Your task to perform on an android device: Search for "razer blade" on walmart, select the first entry, add it to the cart, then select checkout. Image 0: 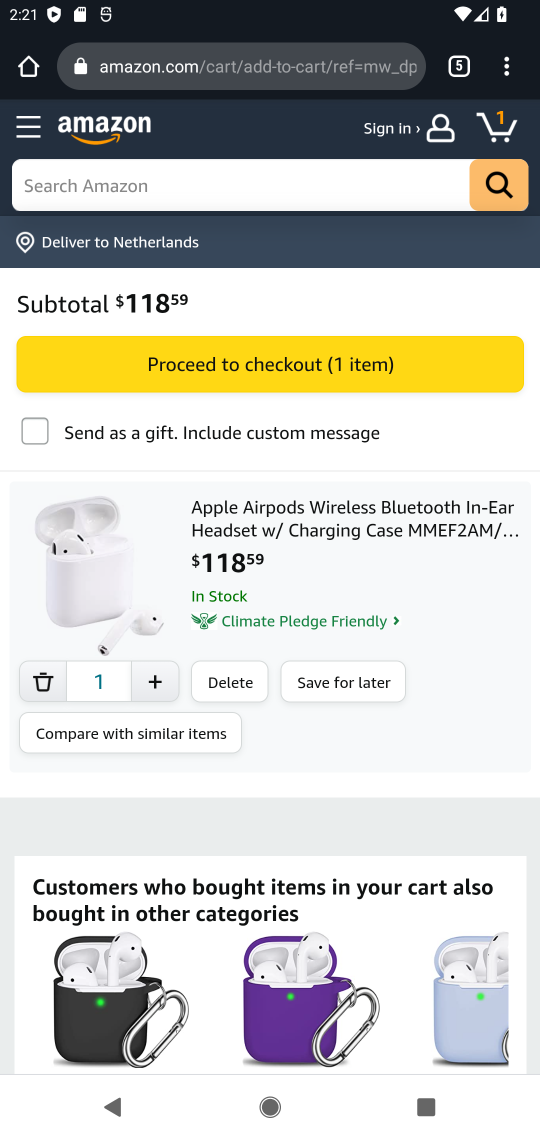
Step 0: click (459, 64)
Your task to perform on an android device: Search for "razer blade" on walmart, select the first entry, add it to the cart, then select checkout. Image 1: 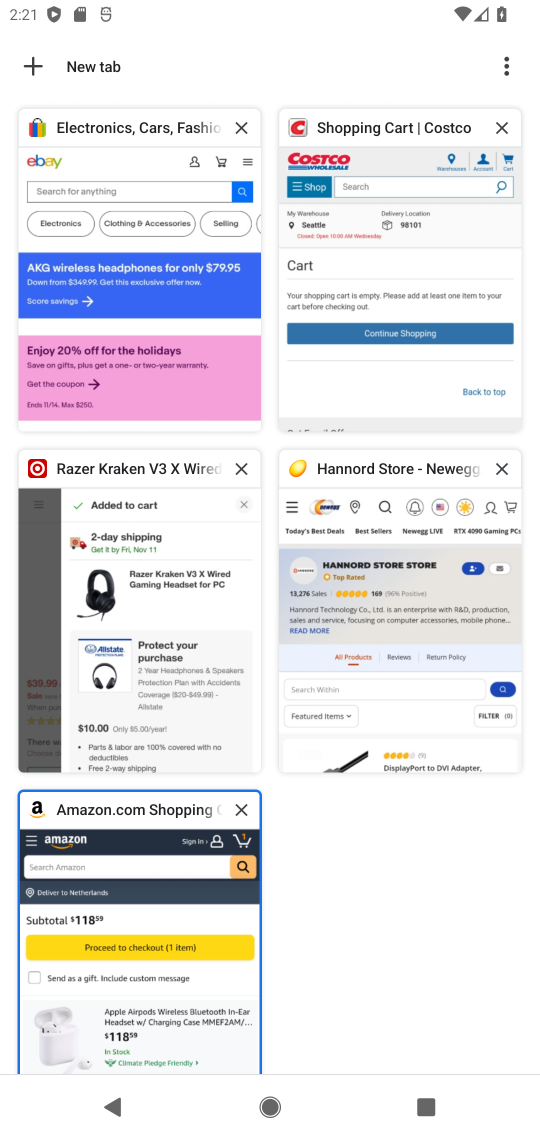
Step 1: click (37, 55)
Your task to perform on an android device: Search for "razer blade" on walmart, select the first entry, add it to the cart, then select checkout. Image 2: 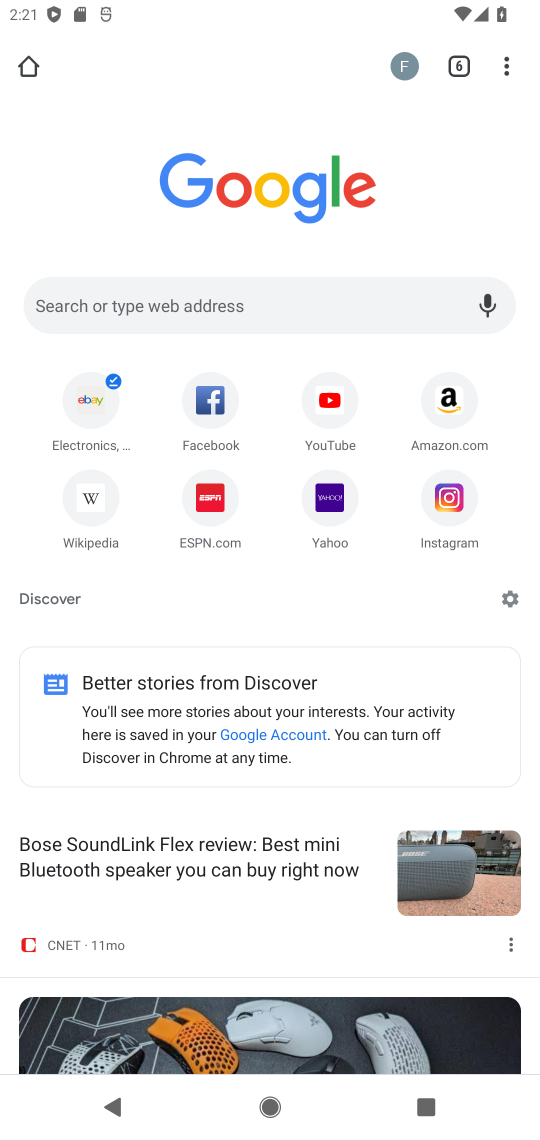
Step 2: click (103, 299)
Your task to perform on an android device: Search for "razer blade" on walmart, select the first entry, add it to the cart, then select checkout. Image 3: 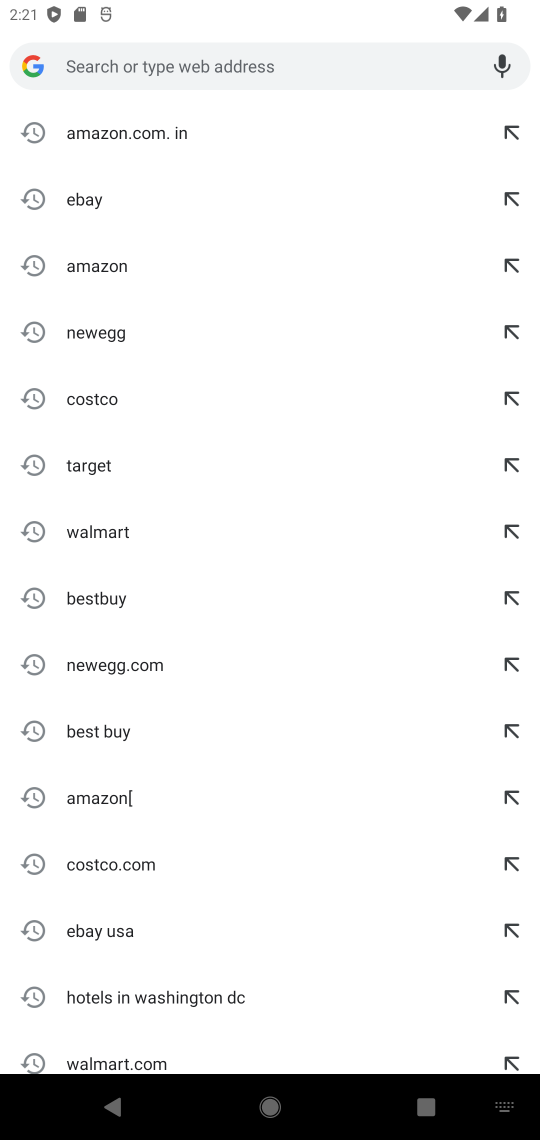
Step 3: click (100, 529)
Your task to perform on an android device: Search for "razer blade" on walmart, select the first entry, add it to the cart, then select checkout. Image 4: 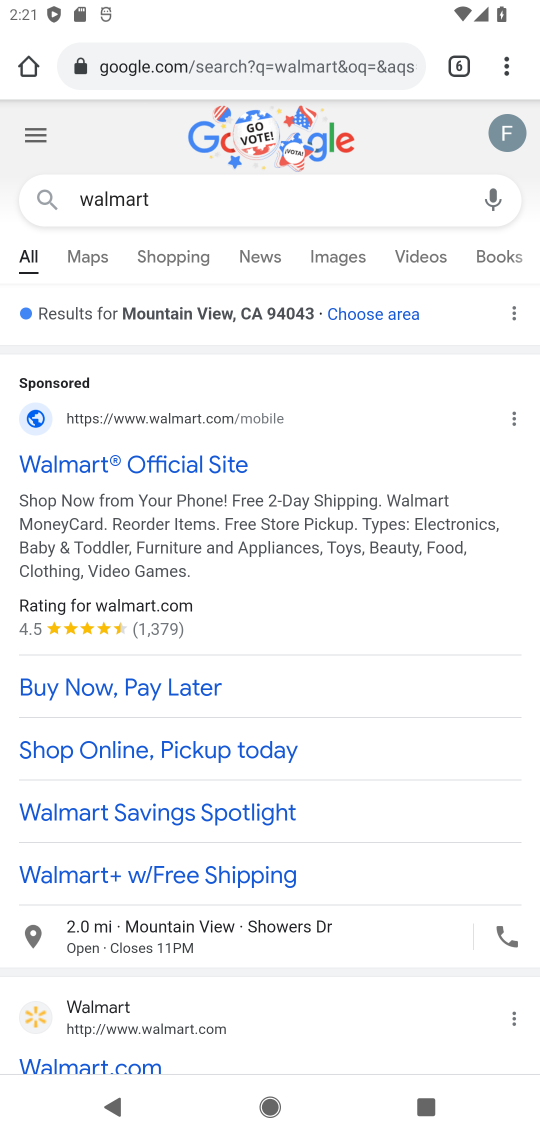
Step 4: drag from (157, 1010) to (275, 49)
Your task to perform on an android device: Search for "razer blade" on walmart, select the first entry, add it to the cart, then select checkout. Image 5: 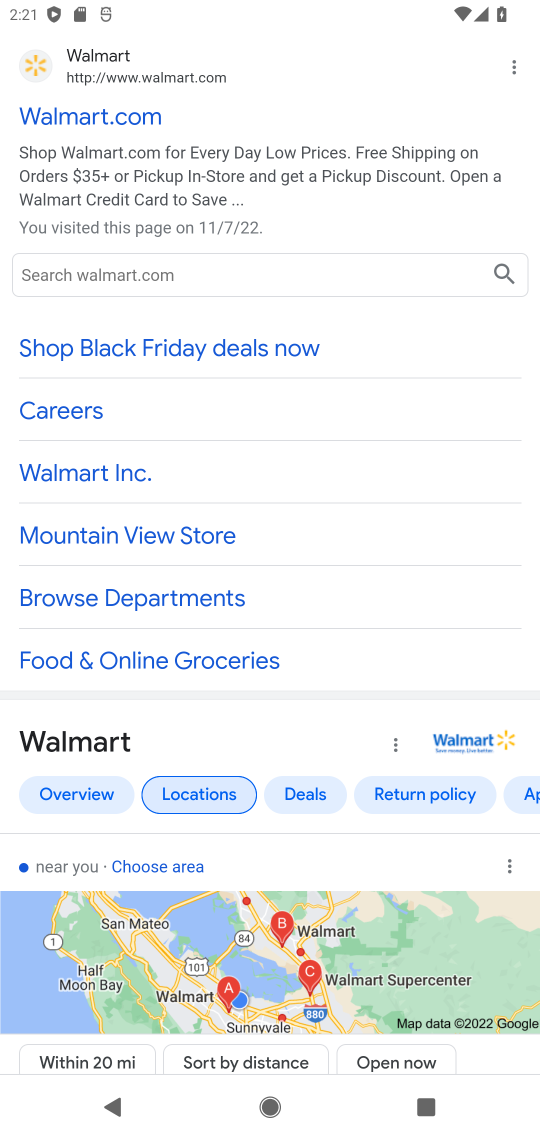
Step 5: click (95, 272)
Your task to perform on an android device: Search for "razer blade" on walmart, select the first entry, add it to the cart, then select checkout. Image 6: 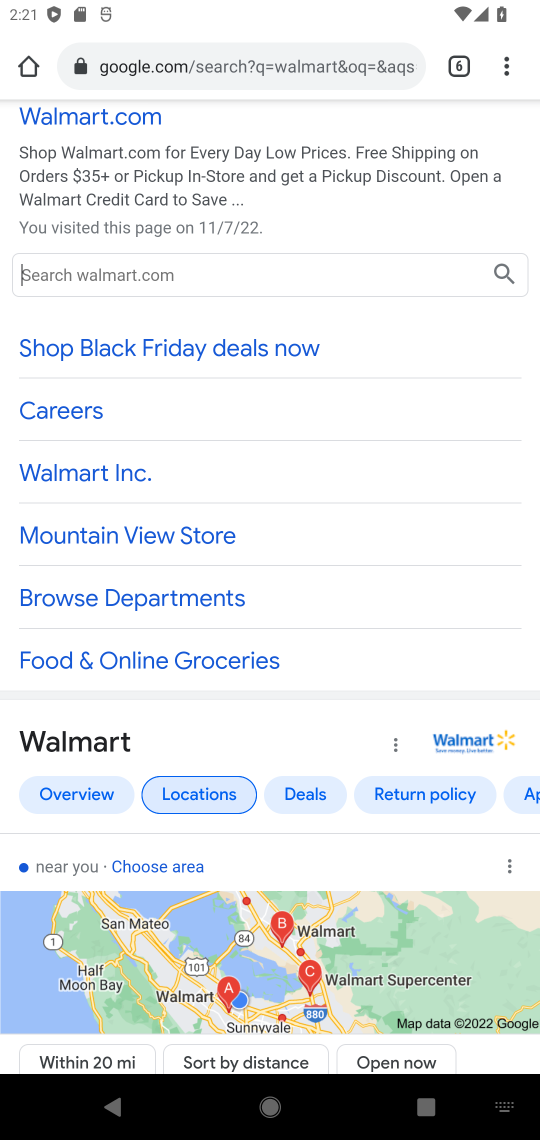
Step 6: type "razer blade"
Your task to perform on an android device: Search for "razer blade" on walmart, select the first entry, add it to the cart, then select checkout. Image 7: 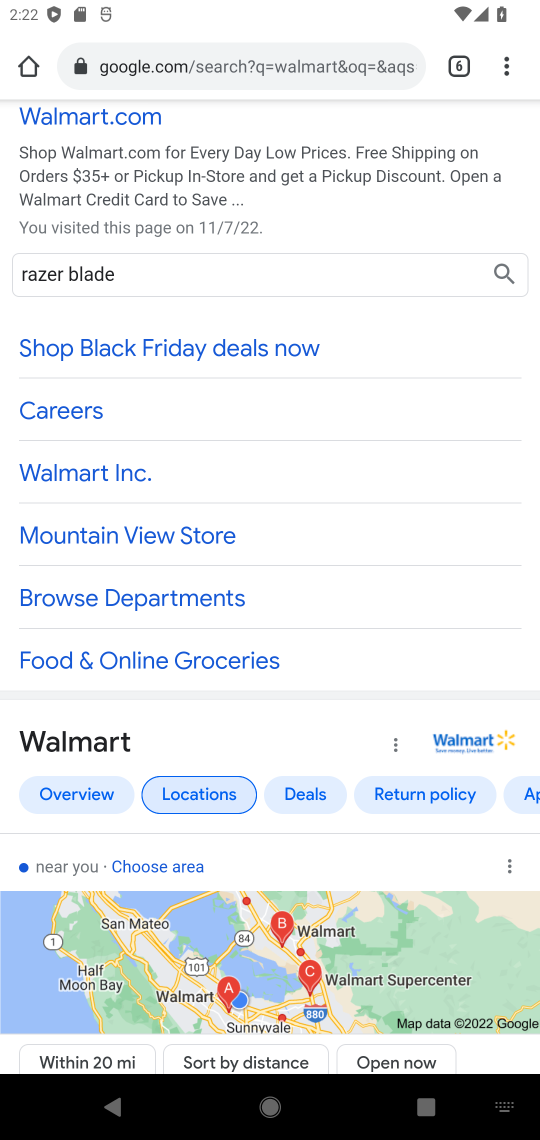
Step 7: click (505, 268)
Your task to perform on an android device: Search for "razer blade" on walmart, select the first entry, add it to the cart, then select checkout. Image 8: 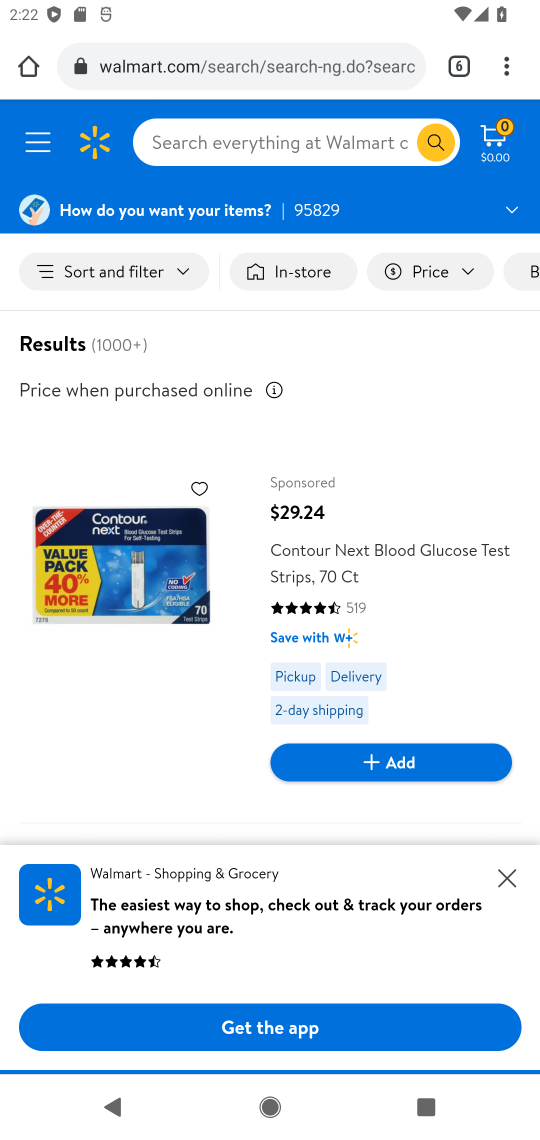
Step 8: click (503, 877)
Your task to perform on an android device: Search for "razer blade" on walmart, select the first entry, add it to the cart, then select checkout. Image 9: 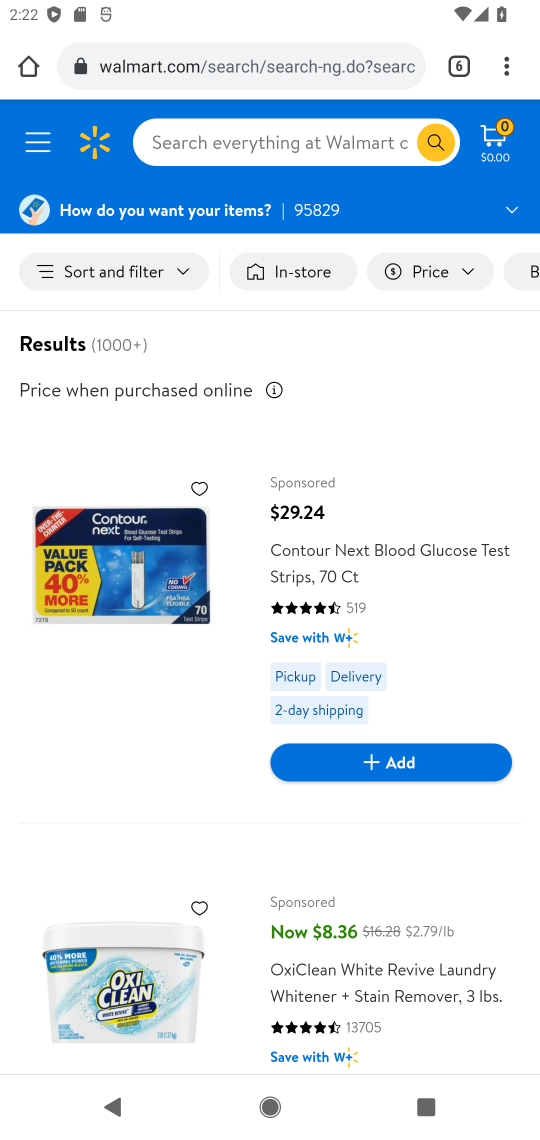
Step 9: drag from (222, 1027) to (363, 243)
Your task to perform on an android device: Search for "razer blade" on walmart, select the first entry, add it to the cart, then select checkout. Image 10: 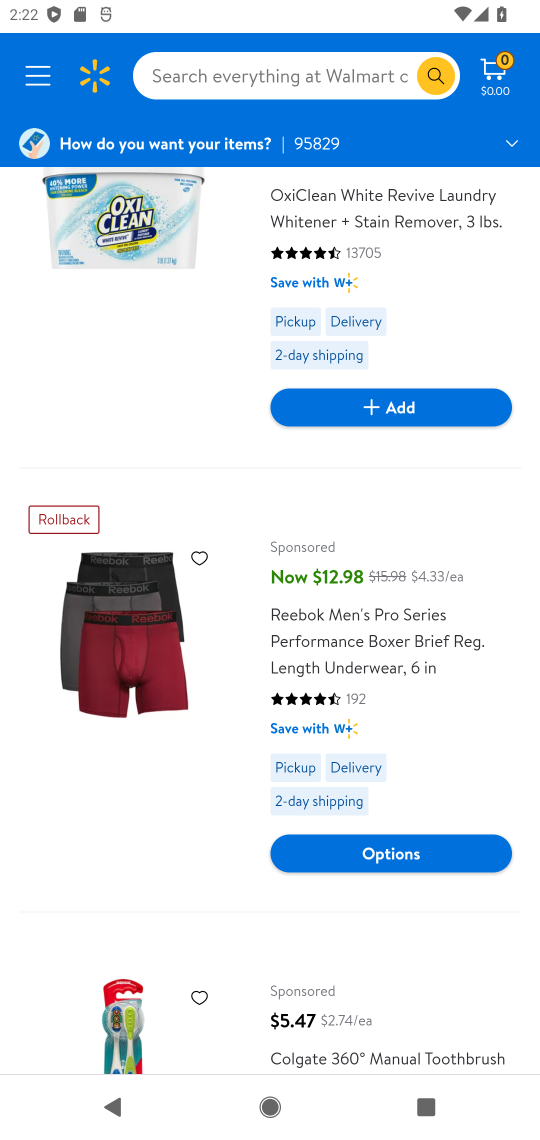
Step 10: drag from (241, 934) to (359, 412)
Your task to perform on an android device: Search for "razer blade" on walmart, select the first entry, add it to the cart, then select checkout. Image 11: 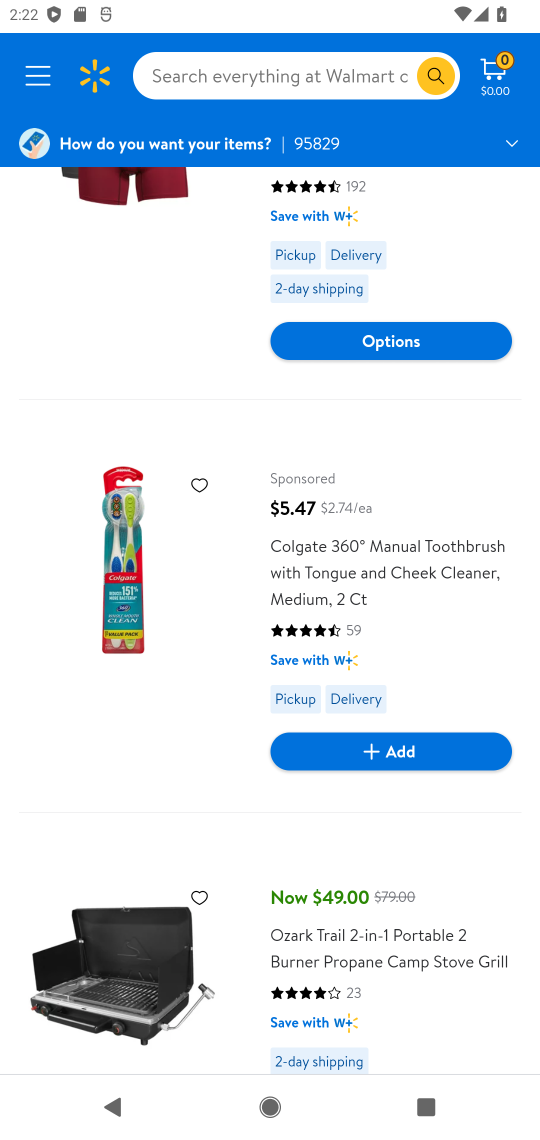
Step 11: drag from (243, 293) to (334, 1048)
Your task to perform on an android device: Search for "razer blade" on walmart, select the first entry, add it to the cart, then select checkout. Image 12: 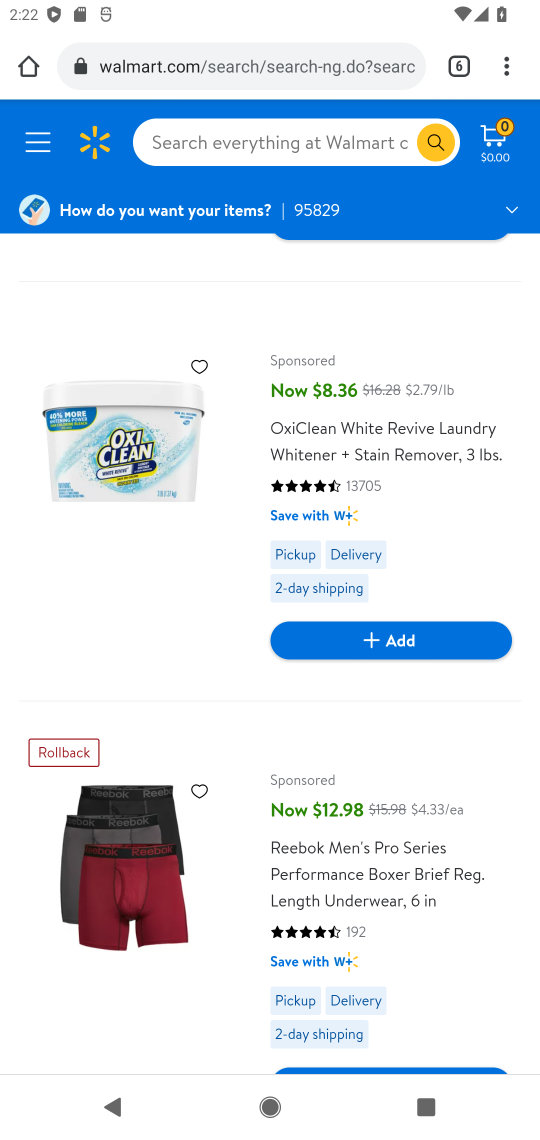
Step 12: click (317, 138)
Your task to perform on an android device: Search for "razer blade" on walmart, select the first entry, add it to the cart, then select checkout. Image 13: 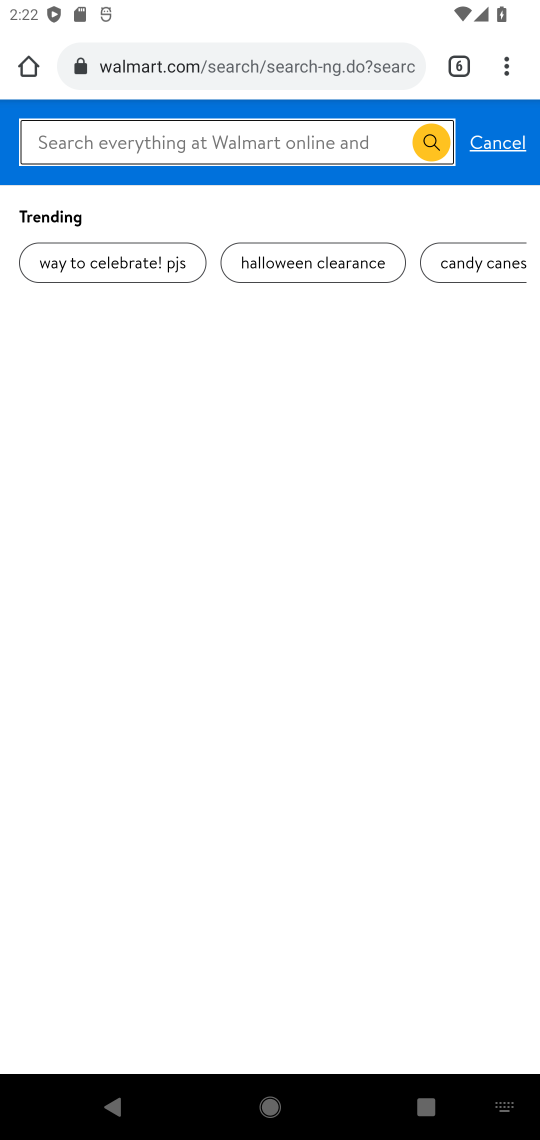
Step 13: type "razer blade"
Your task to perform on an android device: Search for "razer blade" on walmart, select the first entry, add it to the cart, then select checkout. Image 14: 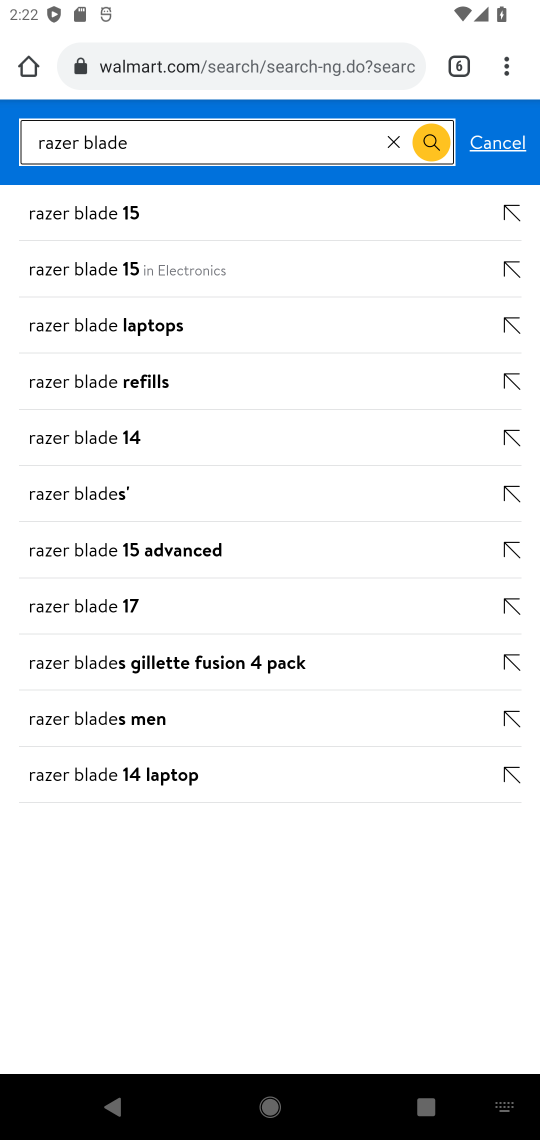
Step 14: click (100, 272)
Your task to perform on an android device: Search for "razer blade" on walmart, select the first entry, add it to the cart, then select checkout. Image 15: 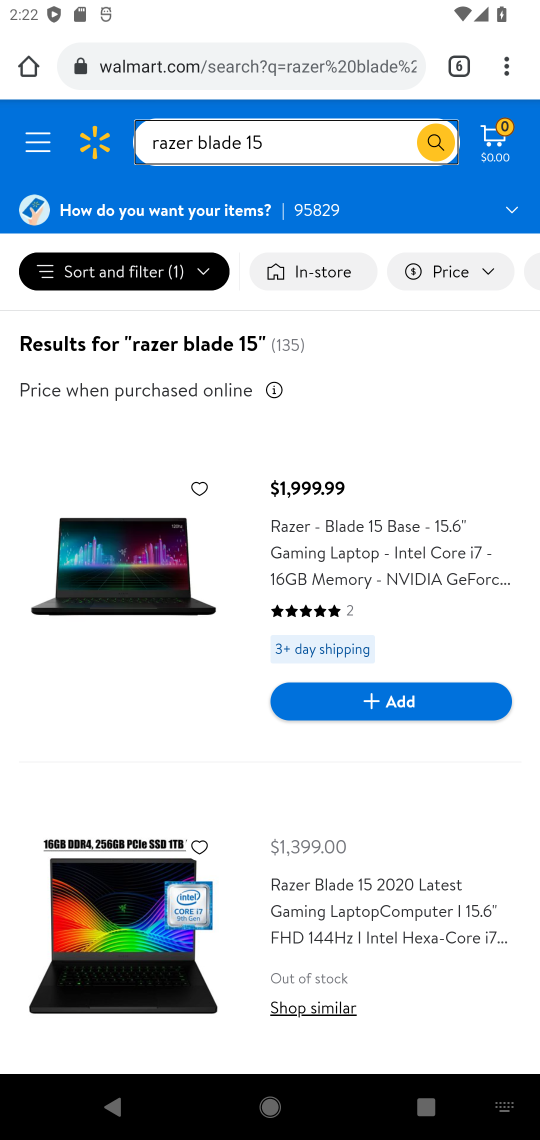
Step 15: click (374, 703)
Your task to perform on an android device: Search for "razer blade" on walmart, select the first entry, add it to the cart, then select checkout. Image 16: 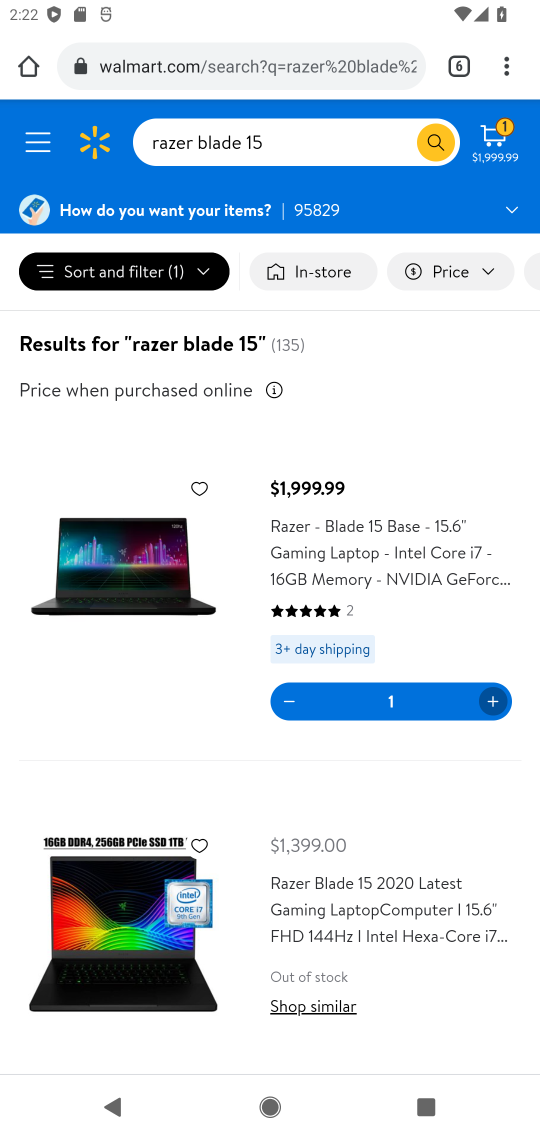
Step 16: click (503, 134)
Your task to perform on an android device: Search for "razer blade" on walmart, select the first entry, add it to the cart, then select checkout. Image 17: 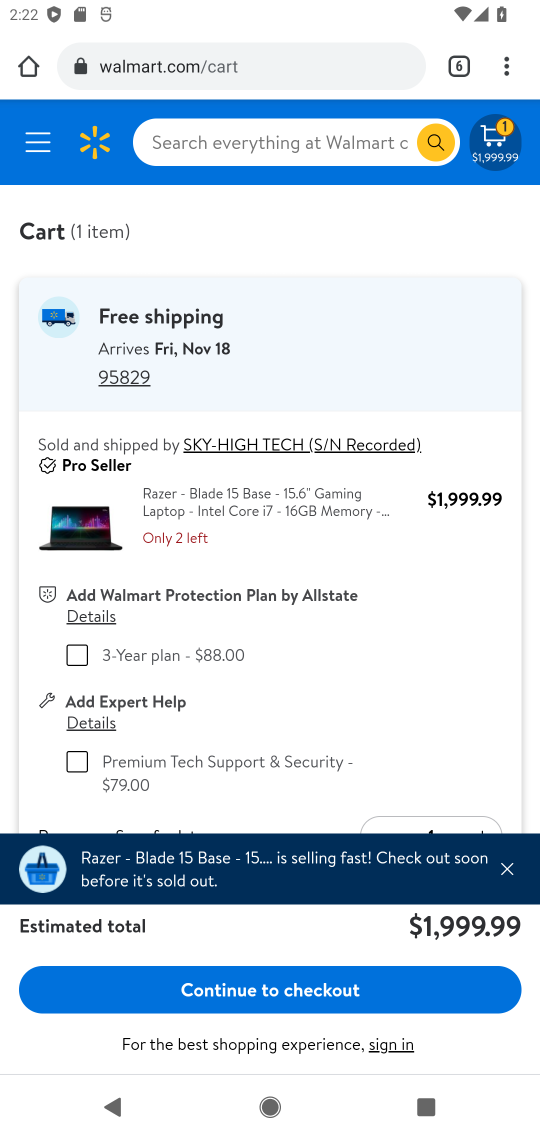
Step 17: click (311, 989)
Your task to perform on an android device: Search for "razer blade" on walmart, select the first entry, add it to the cart, then select checkout. Image 18: 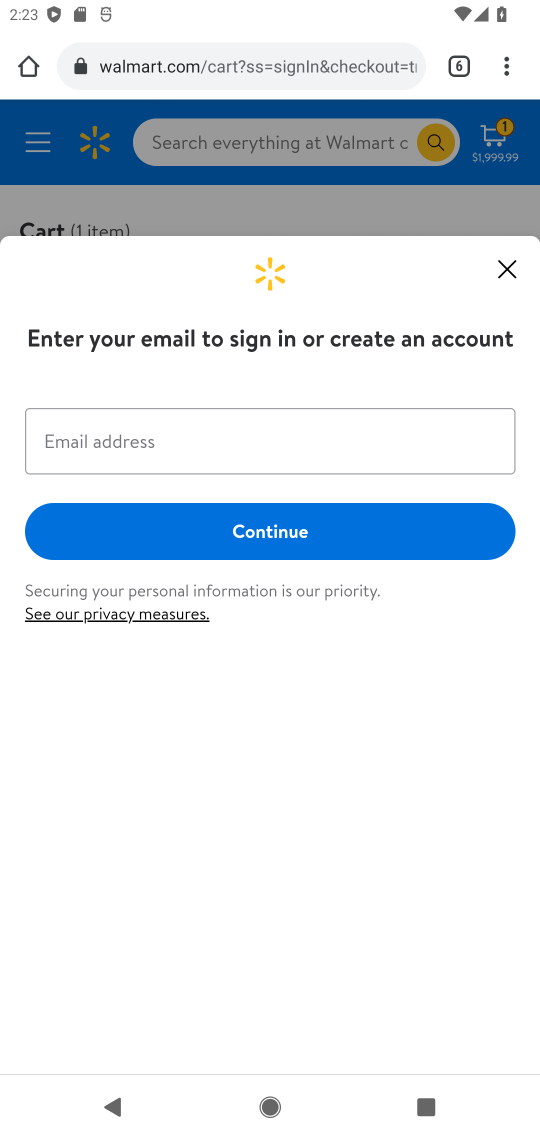
Step 18: task complete